Your task to perform on an android device: turn off airplane mode Image 0: 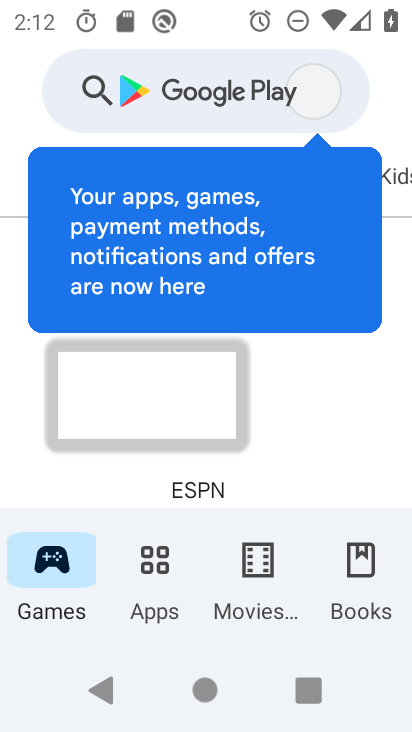
Step 0: press home button
Your task to perform on an android device: turn off airplane mode Image 1: 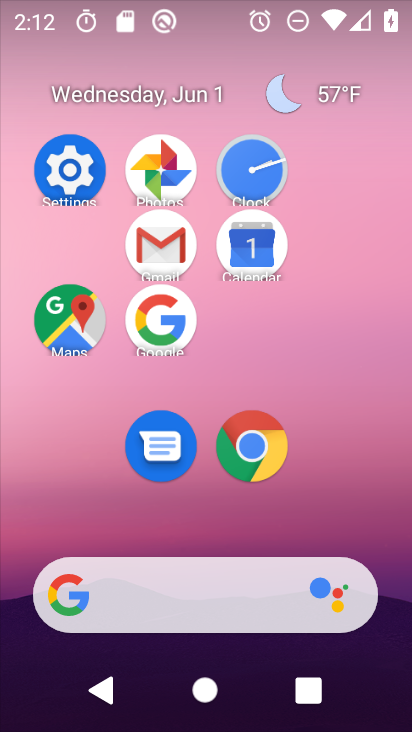
Step 1: click (64, 156)
Your task to perform on an android device: turn off airplane mode Image 2: 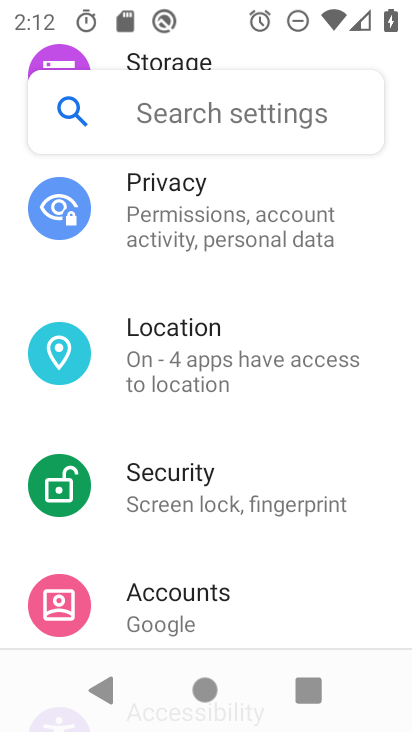
Step 2: drag from (278, 219) to (302, 577)
Your task to perform on an android device: turn off airplane mode Image 3: 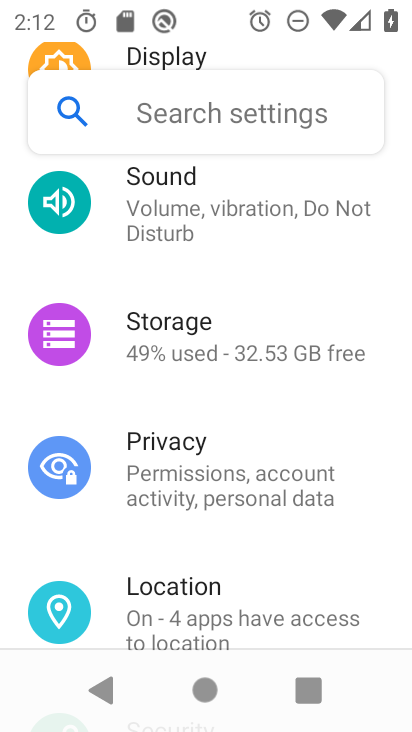
Step 3: drag from (272, 285) to (288, 652)
Your task to perform on an android device: turn off airplane mode Image 4: 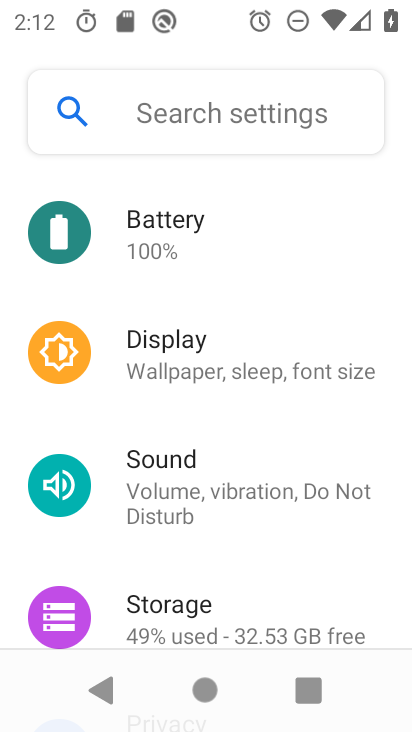
Step 4: drag from (249, 256) to (220, 563)
Your task to perform on an android device: turn off airplane mode Image 5: 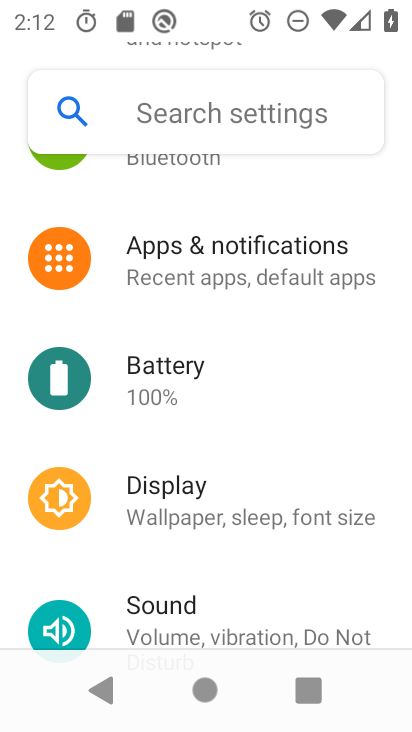
Step 5: drag from (294, 498) to (285, 552)
Your task to perform on an android device: turn off airplane mode Image 6: 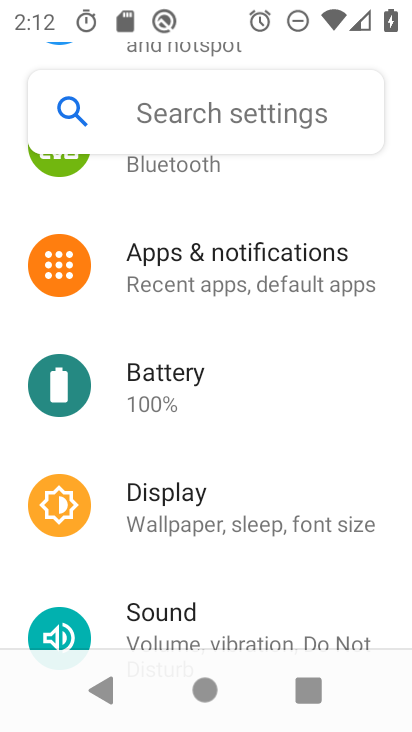
Step 6: drag from (331, 156) to (327, 489)
Your task to perform on an android device: turn off airplane mode Image 7: 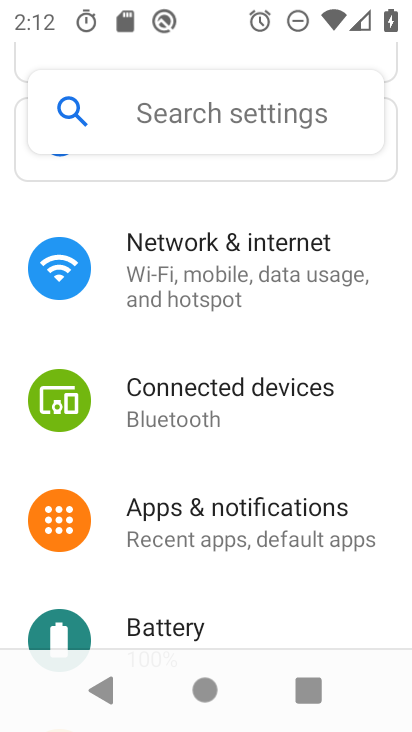
Step 7: click (292, 278)
Your task to perform on an android device: turn off airplane mode Image 8: 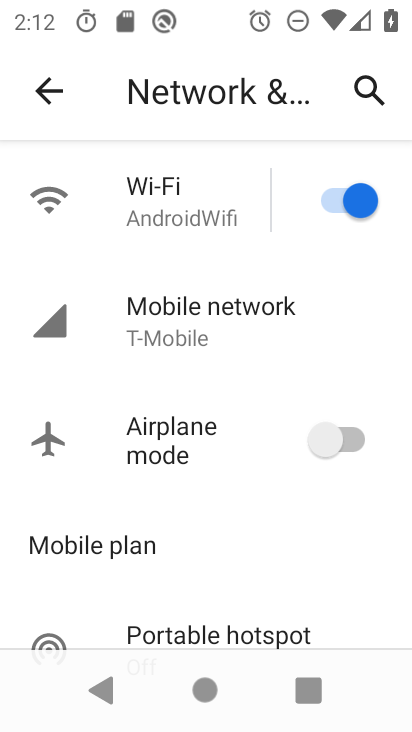
Step 8: task complete